Your task to perform on an android device: turn notification dots off Image 0: 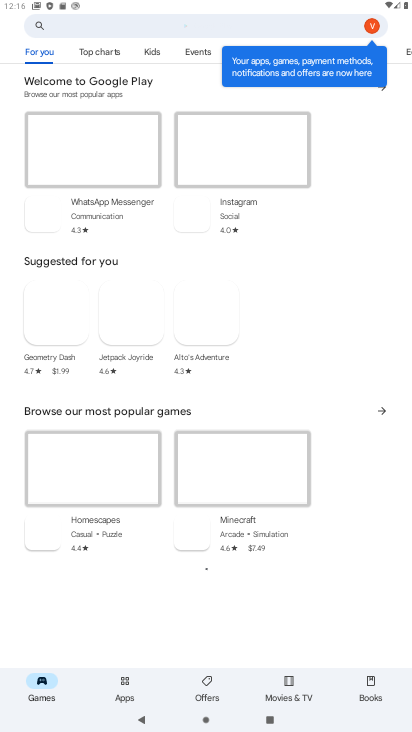
Step 0: press home button
Your task to perform on an android device: turn notification dots off Image 1: 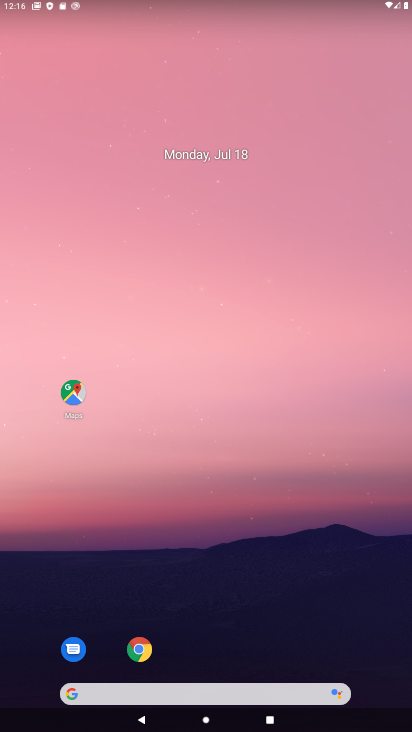
Step 1: drag from (371, 657) to (321, 266)
Your task to perform on an android device: turn notification dots off Image 2: 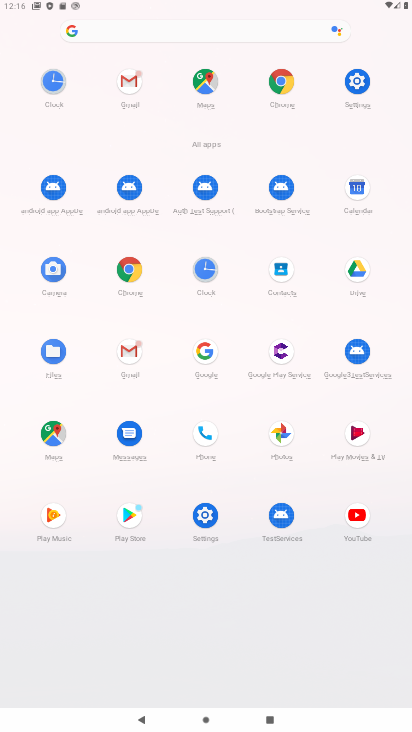
Step 2: click (203, 516)
Your task to perform on an android device: turn notification dots off Image 3: 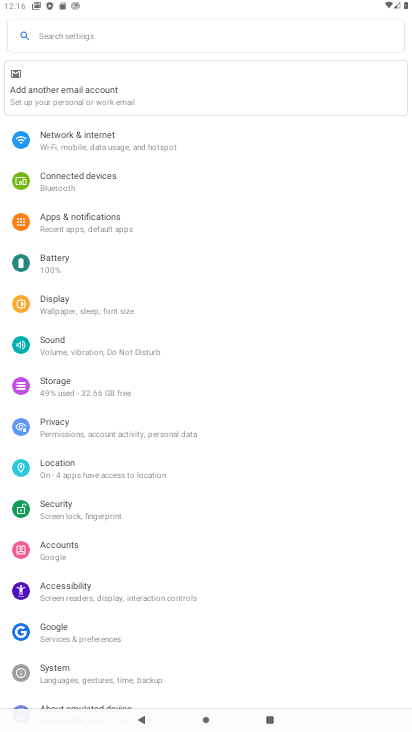
Step 3: click (74, 227)
Your task to perform on an android device: turn notification dots off Image 4: 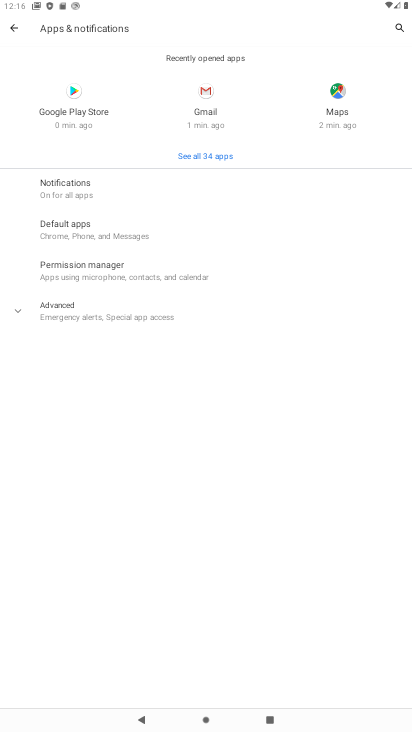
Step 4: click (57, 175)
Your task to perform on an android device: turn notification dots off Image 5: 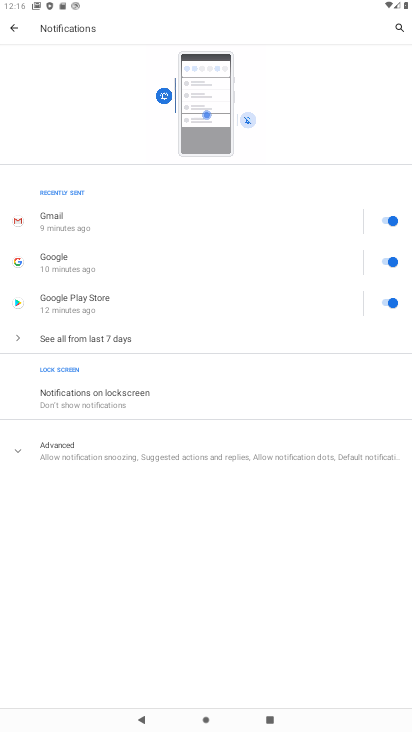
Step 5: click (27, 445)
Your task to perform on an android device: turn notification dots off Image 6: 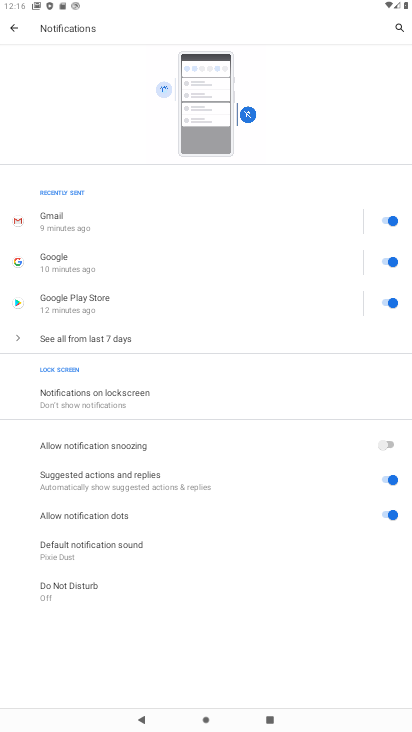
Step 6: click (383, 513)
Your task to perform on an android device: turn notification dots off Image 7: 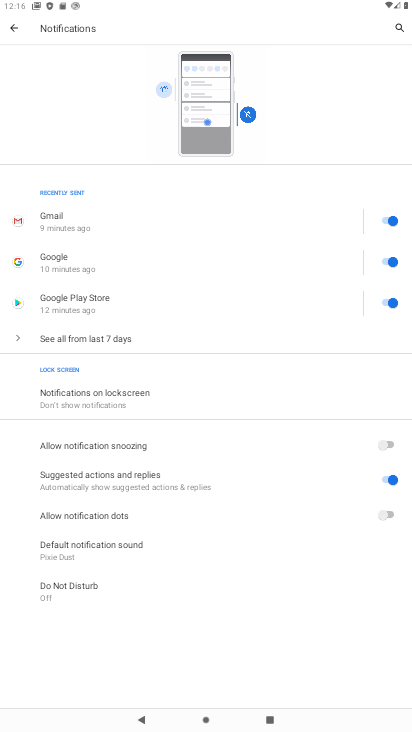
Step 7: task complete